Your task to perform on an android device: Open Google Maps Image 0: 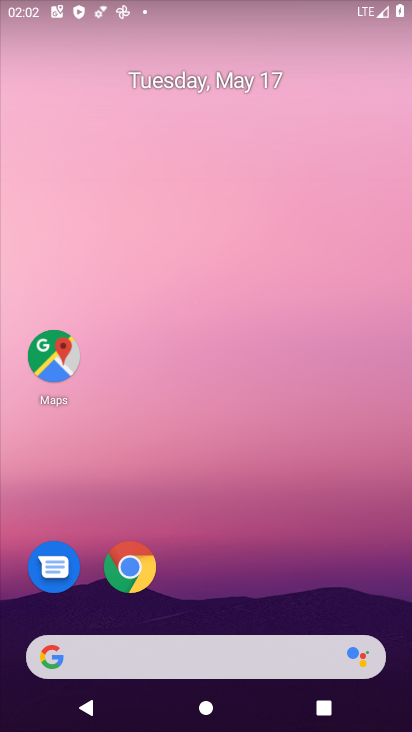
Step 0: click (53, 352)
Your task to perform on an android device: Open Google Maps Image 1: 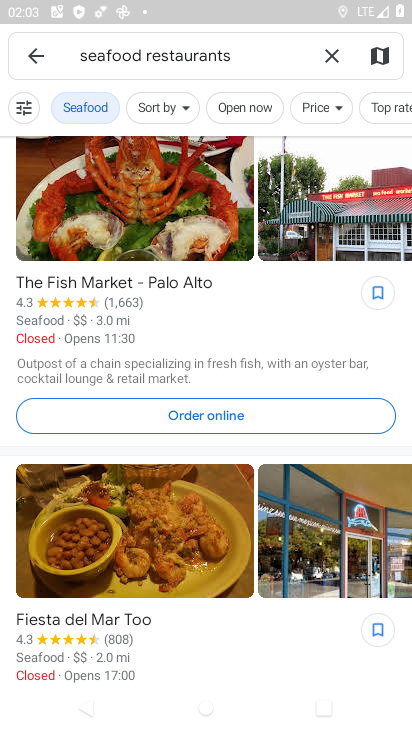
Step 1: click (328, 52)
Your task to perform on an android device: Open Google Maps Image 2: 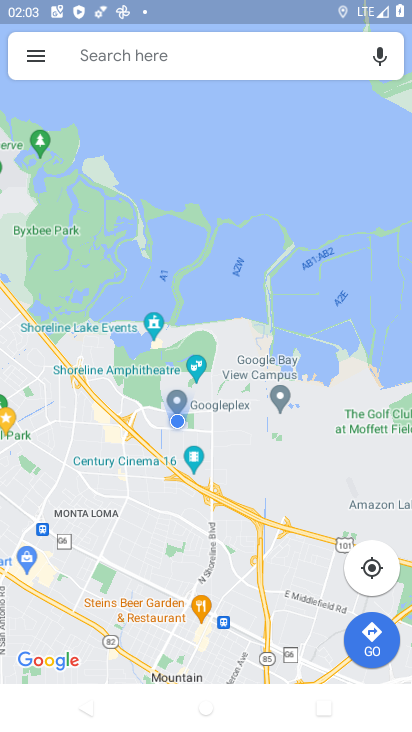
Step 2: task complete